Your task to perform on an android device: Open Amazon Image 0: 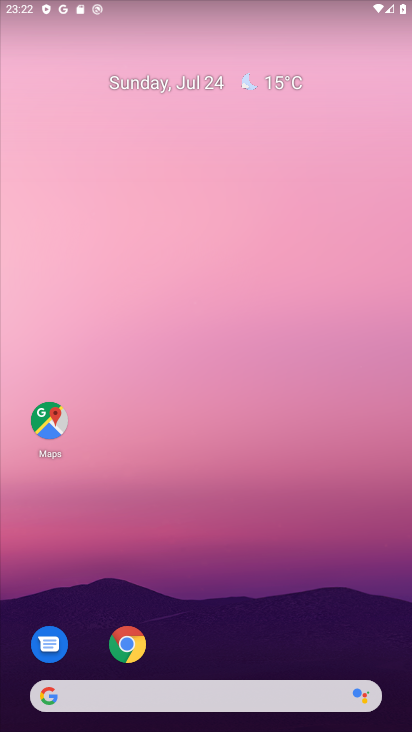
Step 0: click (126, 647)
Your task to perform on an android device: Open Amazon Image 1: 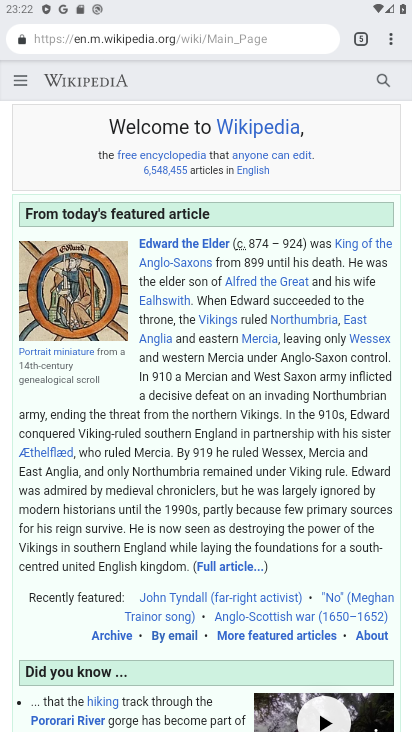
Step 1: click (392, 41)
Your task to perform on an android device: Open Amazon Image 2: 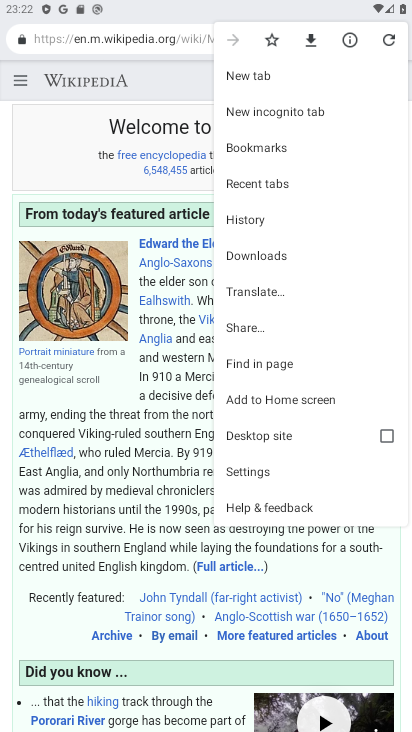
Step 2: click (242, 71)
Your task to perform on an android device: Open Amazon Image 3: 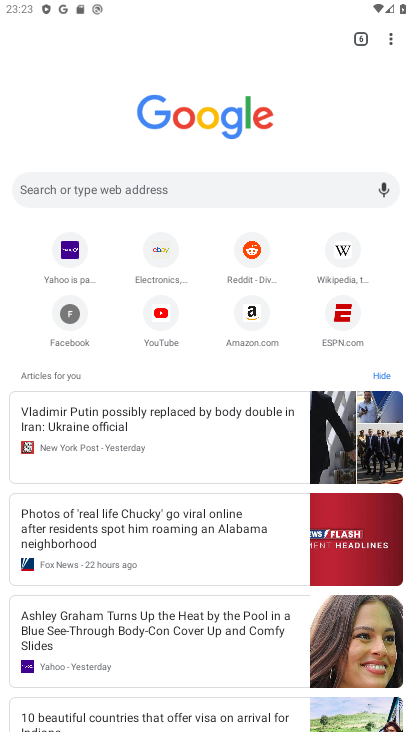
Step 3: click (253, 314)
Your task to perform on an android device: Open Amazon Image 4: 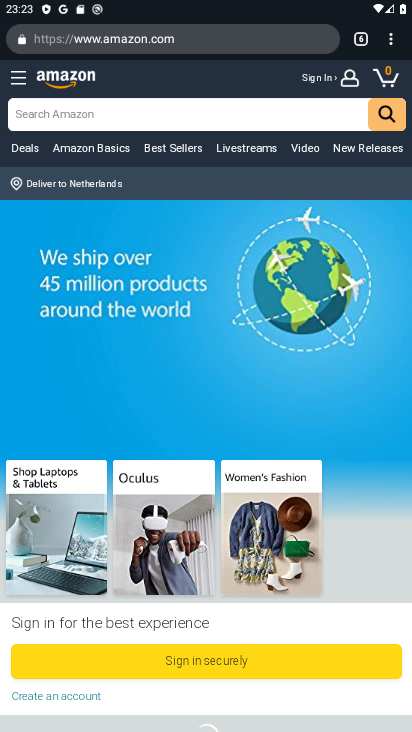
Step 4: task complete